Your task to perform on an android device: turn on javascript in the chrome app Image 0: 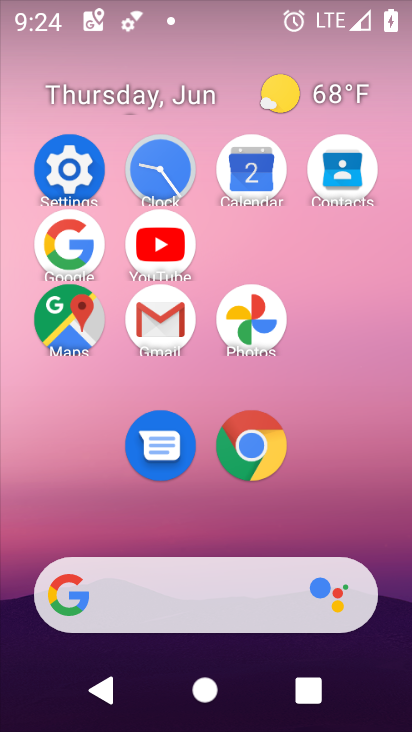
Step 0: click (234, 453)
Your task to perform on an android device: turn on javascript in the chrome app Image 1: 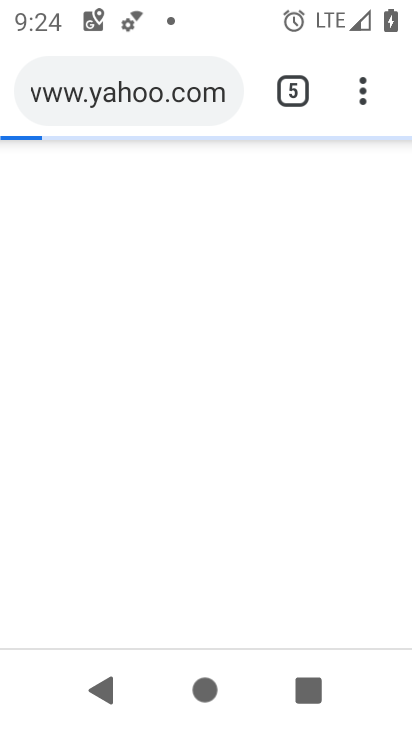
Step 1: click (366, 96)
Your task to perform on an android device: turn on javascript in the chrome app Image 2: 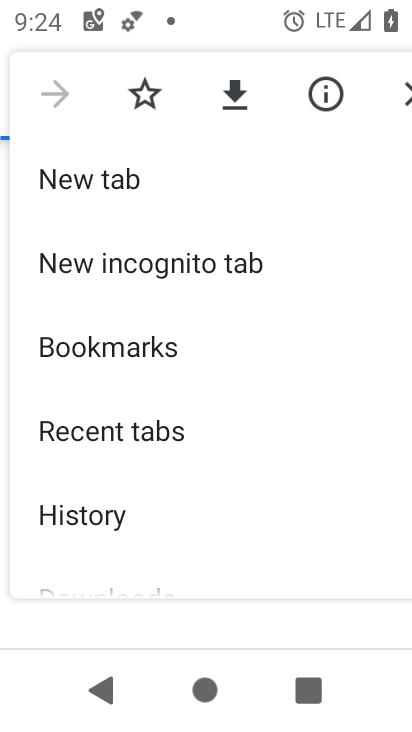
Step 2: drag from (224, 456) to (264, 141)
Your task to perform on an android device: turn on javascript in the chrome app Image 3: 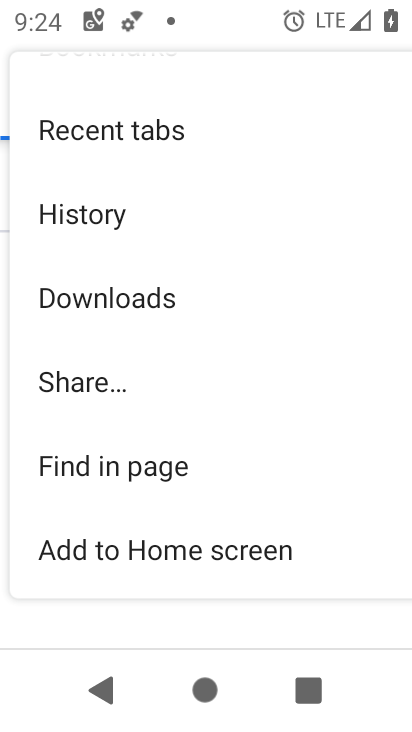
Step 3: drag from (249, 461) to (235, 142)
Your task to perform on an android device: turn on javascript in the chrome app Image 4: 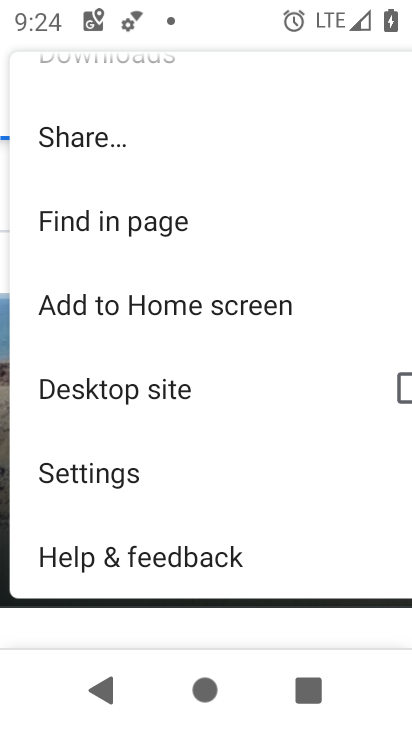
Step 4: click (124, 455)
Your task to perform on an android device: turn on javascript in the chrome app Image 5: 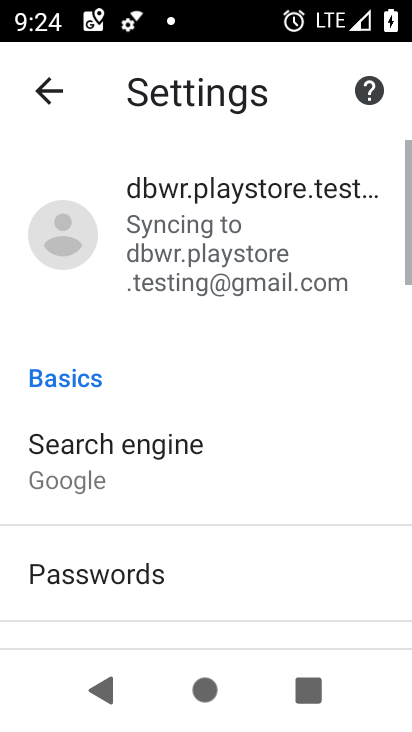
Step 5: drag from (203, 484) to (270, 135)
Your task to perform on an android device: turn on javascript in the chrome app Image 6: 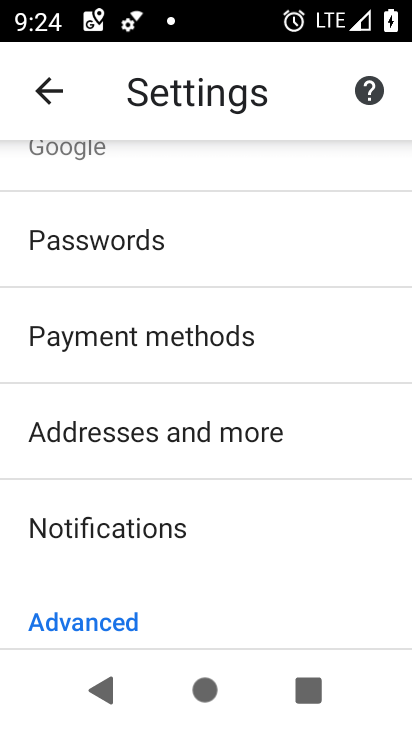
Step 6: drag from (255, 532) to (316, 160)
Your task to perform on an android device: turn on javascript in the chrome app Image 7: 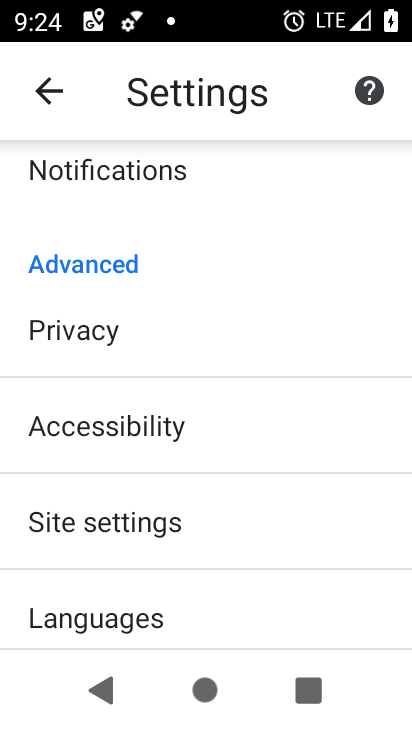
Step 7: click (182, 531)
Your task to perform on an android device: turn on javascript in the chrome app Image 8: 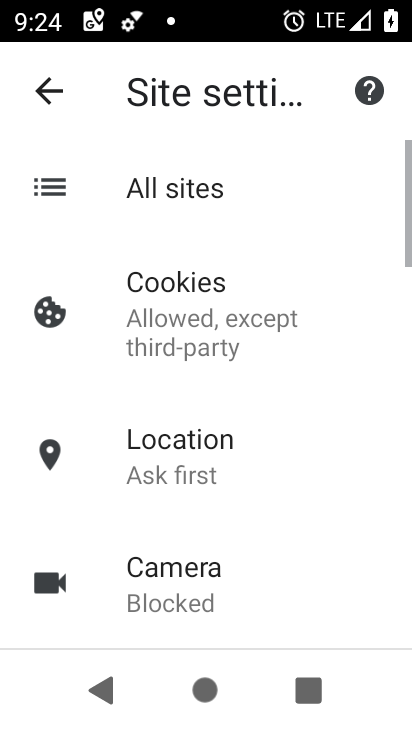
Step 8: drag from (181, 526) to (196, 129)
Your task to perform on an android device: turn on javascript in the chrome app Image 9: 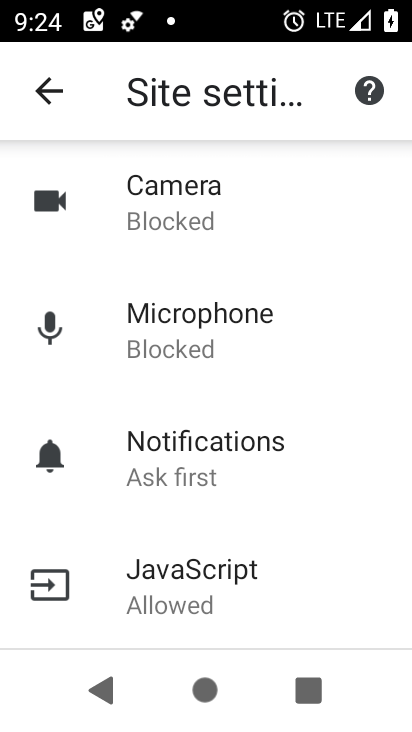
Step 9: click (169, 578)
Your task to perform on an android device: turn on javascript in the chrome app Image 10: 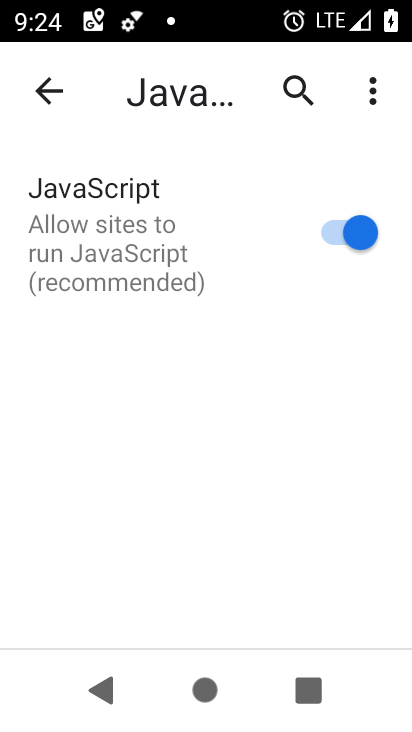
Step 10: task complete